Your task to perform on an android device: Show me productivity apps on the Play Store Image 0: 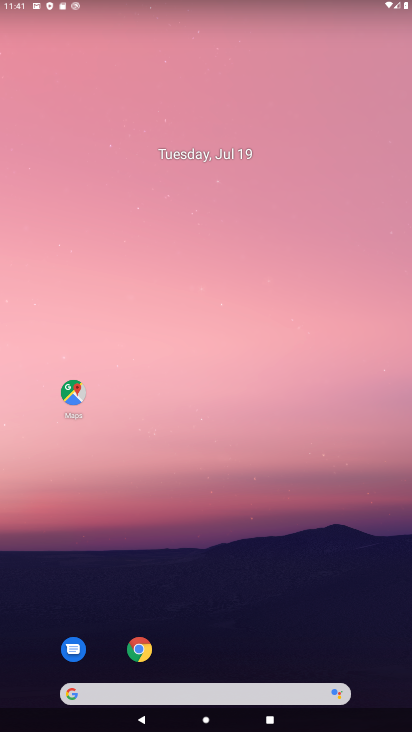
Step 0: drag from (204, 660) to (118, 125)
Your task to perform on an android device: Show me productivity apps on the Play Store Image 1: 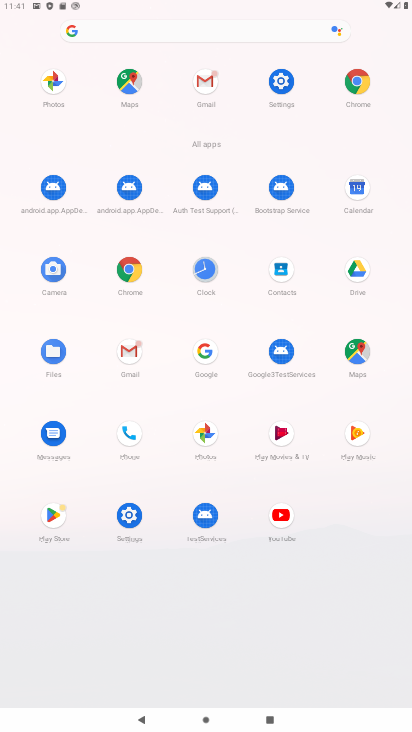
Step 1: click (50, 510)
Your task to perform on an android device: Show me productivity apps on the Play Store Image 2: 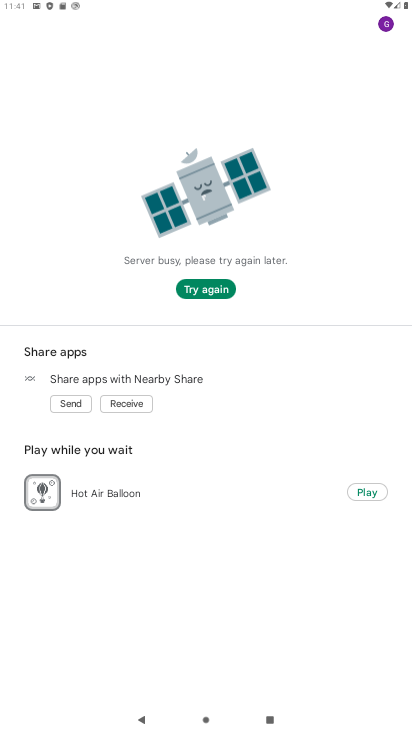
Step 2: click (199, 286)
Your task to perform on an android device: Show me productivity apps on the Play Store Image 3: 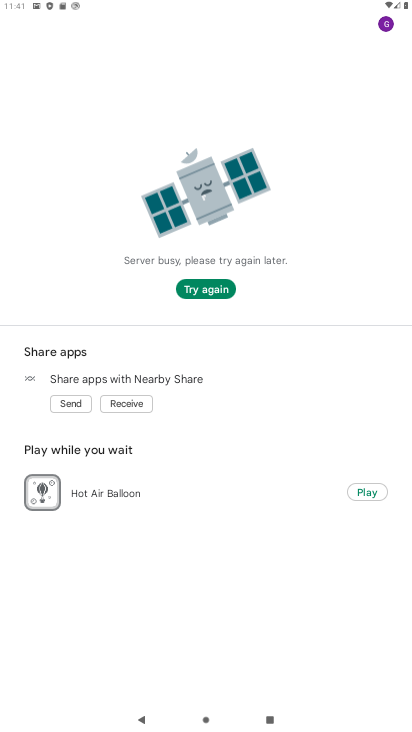
Step 3: task complete